Your task to perform on an android device: turn off location Image 0: 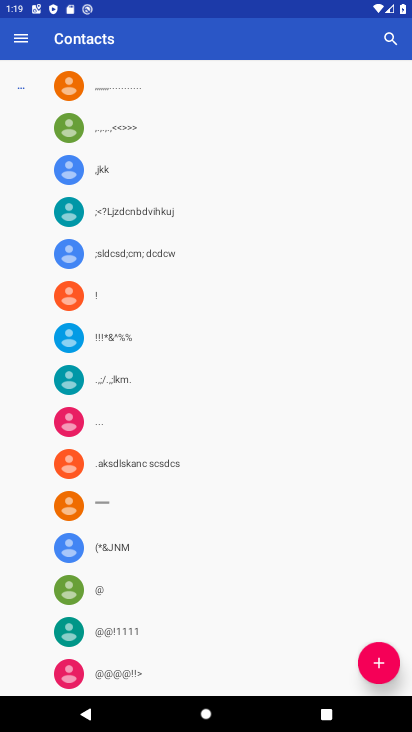
Step 0: press home button
Your task to perform on an android device: turn off location Image 1: 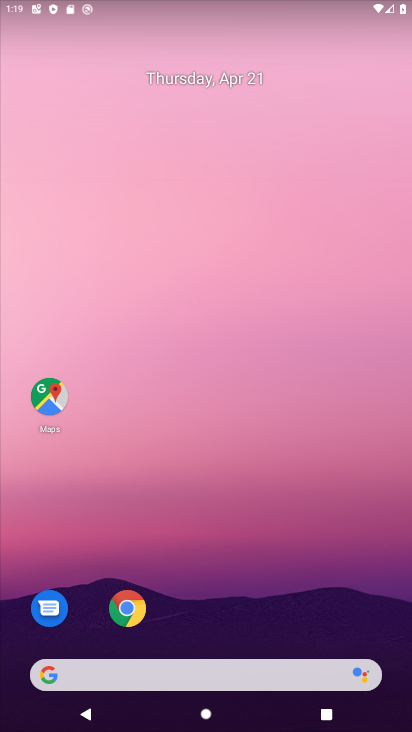
Step 1: drag from (333, 505) to (298, 90)
Your task to perform on an android device: turn off location Image 2: 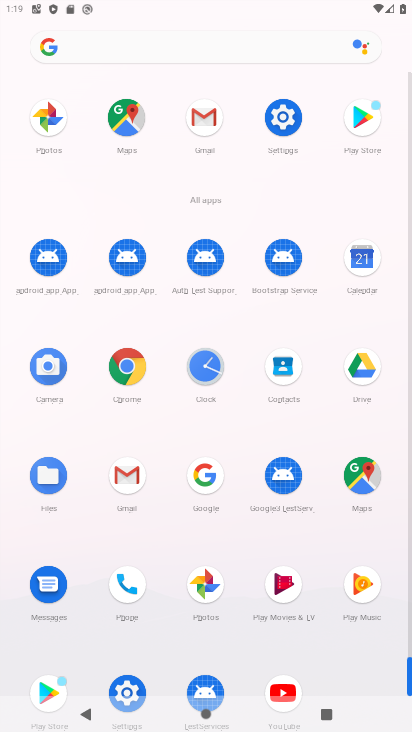
Step 2: click (295, 120)
Your task to perform on an android device: turn off location Image 3: 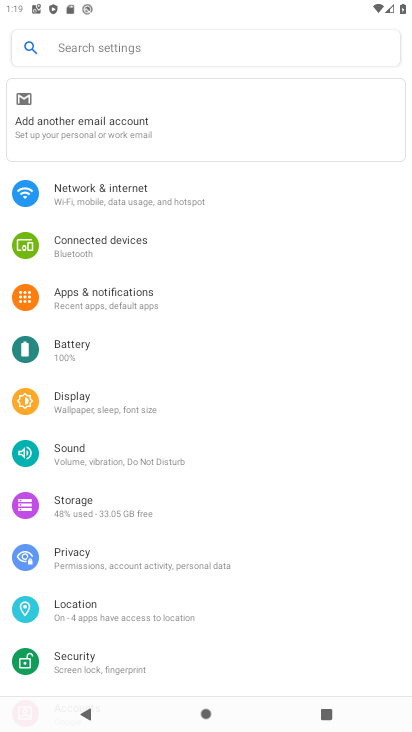
Step 3: drag from (153, 570) to (211, 211)
Your task to perform on an android device: turn off location Image 4: 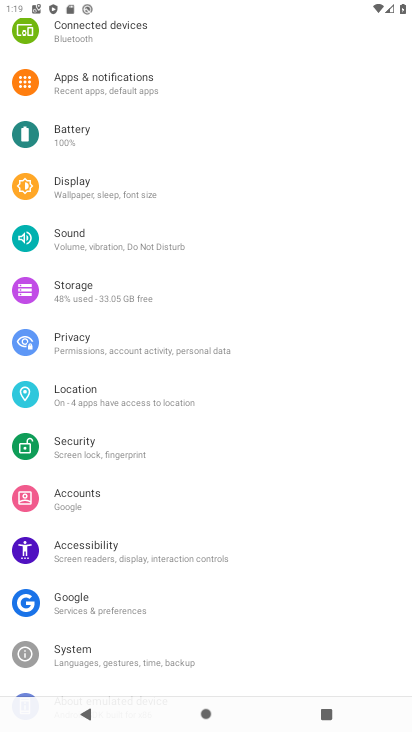
Step 4: click (108, 410)
Your task to perform on an android device: turn off location Image 5: 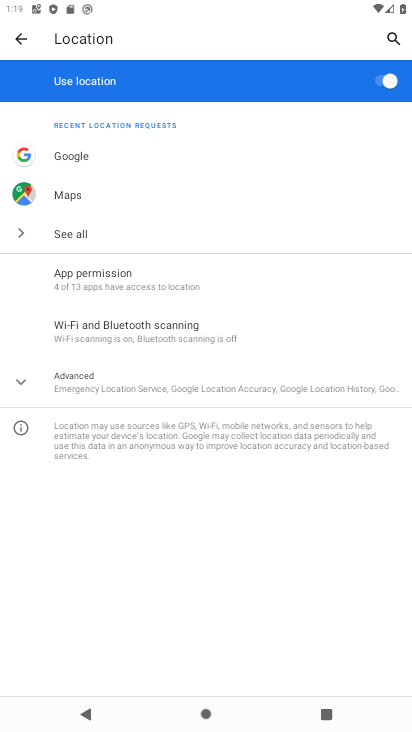
Step 5: click (378, 84)
Your task to perform on an android device: turn off location Image 6: 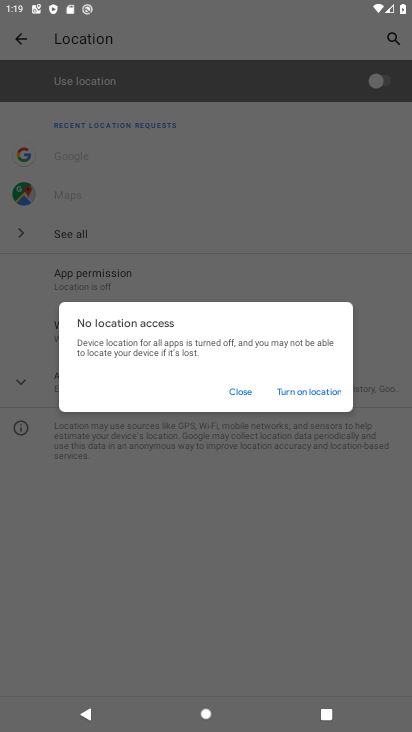
Step 6: task complete